Your task to perform on an android device: Go to accessibility settings Image 0: 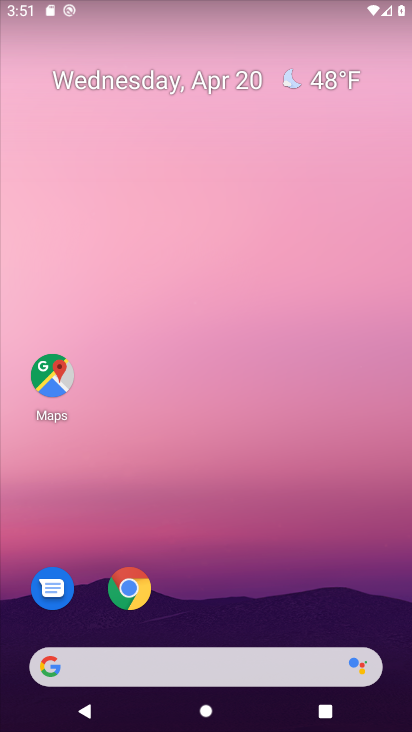
Step 0: drag from (299, 594) to (390, 140)
Your task to perform on an android device: Go to accessibility settings Image 1: 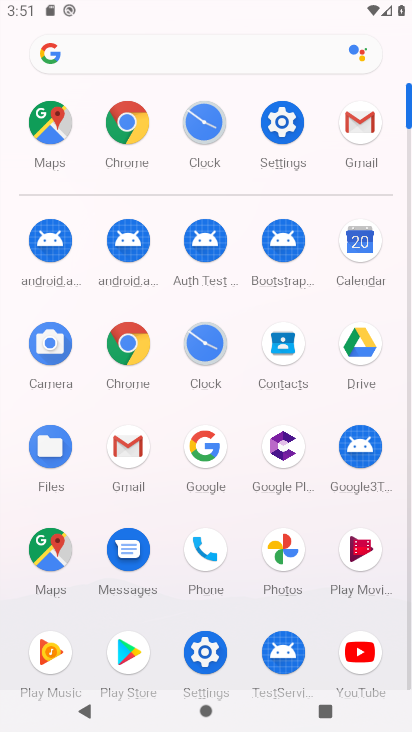
Step 1: click (281, 129)
Your task to perform on an android device: Go to accessibility settings Image 2: 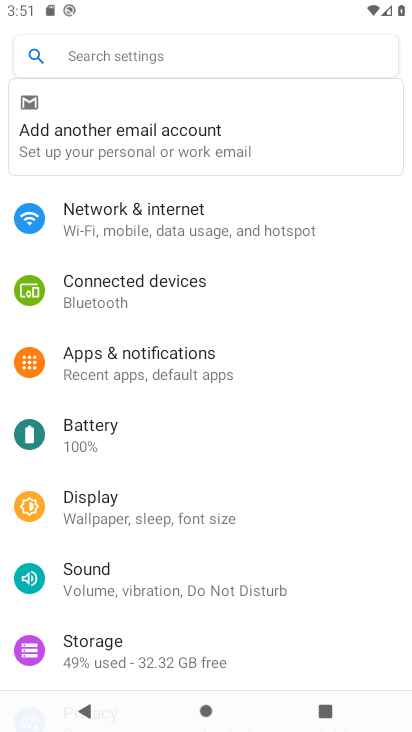
Step 2: drag from (310, 605) to (353, 428)
Your task to perform on an android device: Go to accessibility settings Image 3: 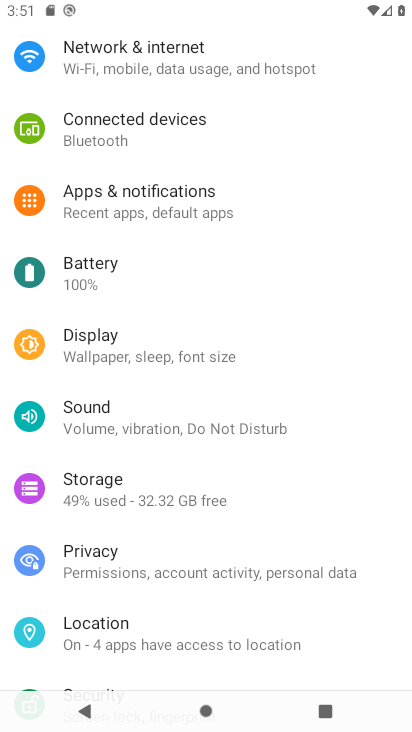
Step 3: drag from (345, 622) to (370, 415)
Your task to perform on an android device: Go to accessibility settings Image 4: 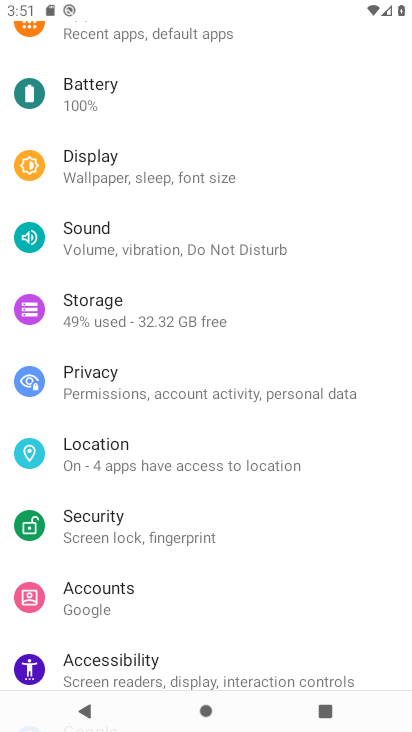
Step 4: drag from (329, 590) to (328, 397)
Your task to perform on an android device: Go to accessibility settings Image 5: 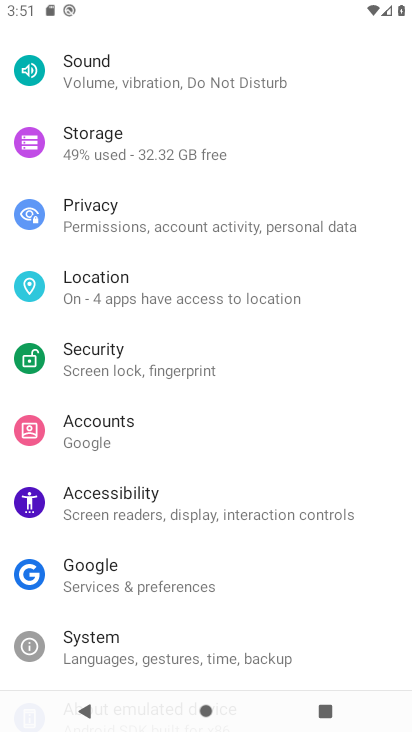
Step 5: drag from (336, 618) to (373, 400)
Your task to perform on an android device: Go to accessibility settings Image 6: 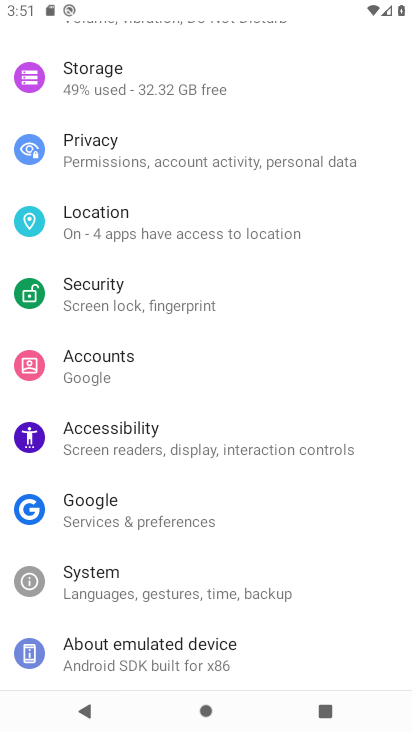
Step 6: drag from (369, 348) to (338, 523)
Your task to perform on an android device: Go to accessibility settings Image 7: 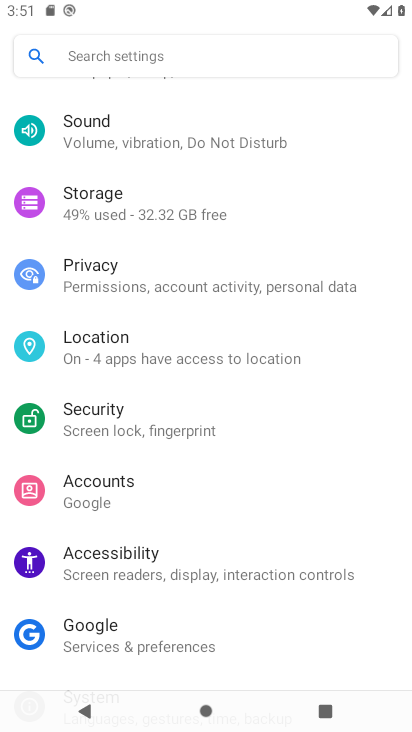
Step 7: drag from (375, 338) to (363, 504)
Your task to perform on an android device: Go to accessibility settings Image 8: 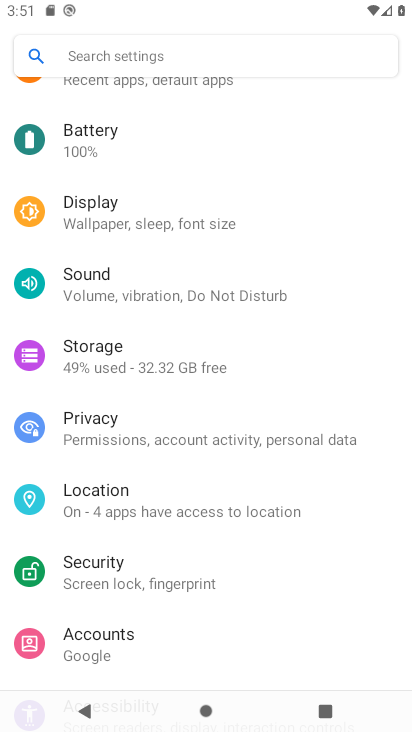
Step 8: drag from (362, 262) to (323, 513)
Your task to perform on an android device: Go to accessibility settings Image 9: 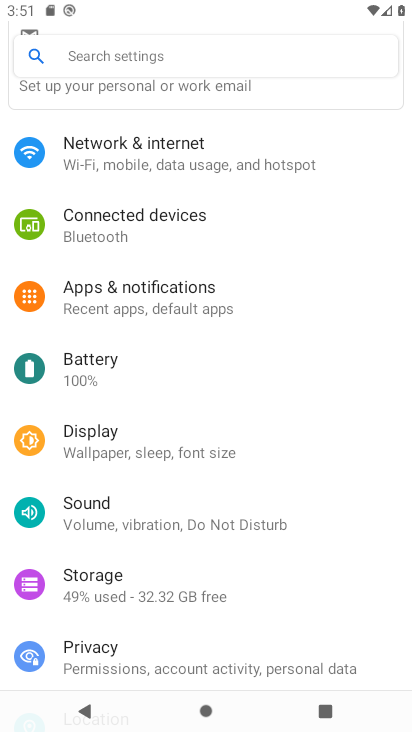
Step 9: drag from (339, 309) to (320, 490)
Your task to perform on an android device: Go to accessibility settings Image 10: 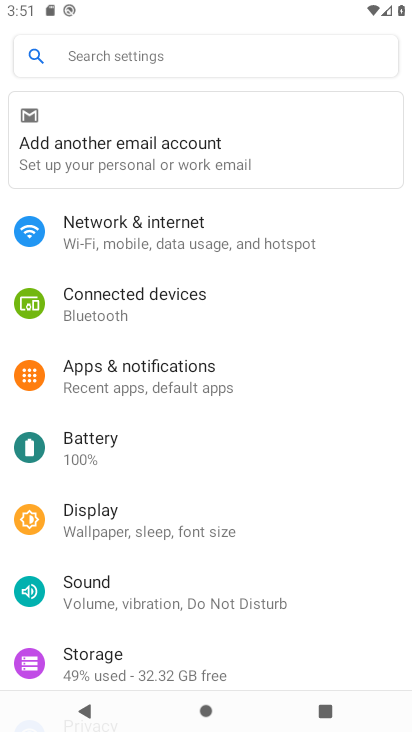
Step 10: drag from (304, 607) to (354, 393)
Your task to perform on an android device: Go to accessibility settings Image 11: 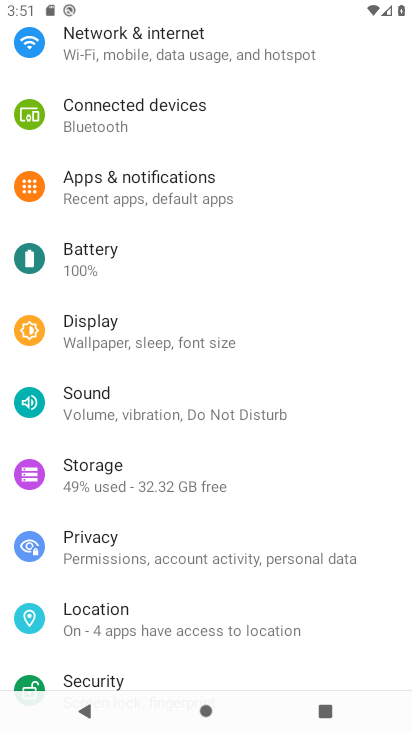
Step 11: drag from (299, 646) to (326, 451)
Your task to perform on an android device: Go to accessibility settings Image 12: 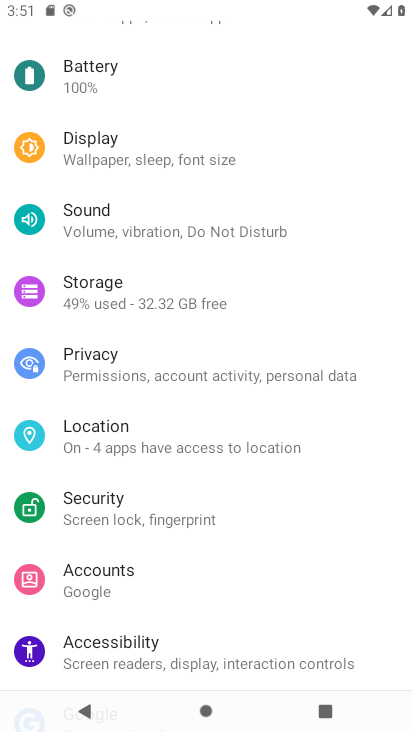
Step 12: click (117, 641)
Your task to perform on an android device: Go to accessibility settings Image 13: 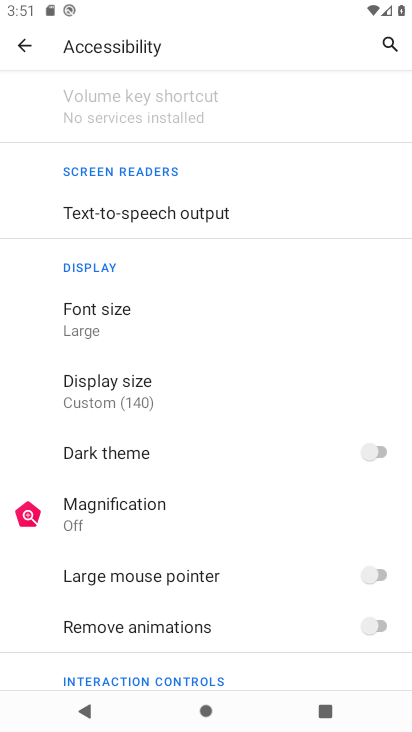
Step 13: task complete